Your task to perform on an android device: Open accessibility settings Image 0: 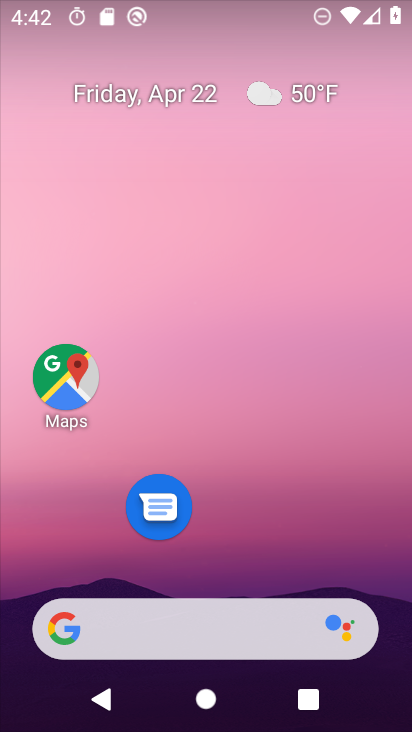
Step 0: drag from (227, 559) to (289, 108)
Your task to perform on an android device: Open accessibility settings Image 1: 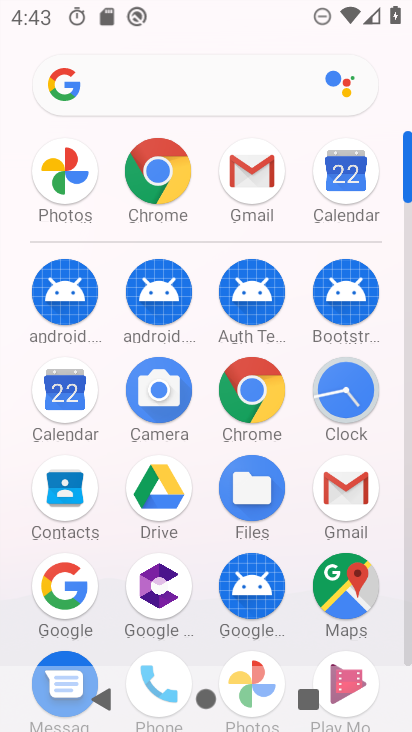
Step 1: drag from (204, 598) to (320, 139)
Your task to perform on an android device: Open accessibility settings Image 2: 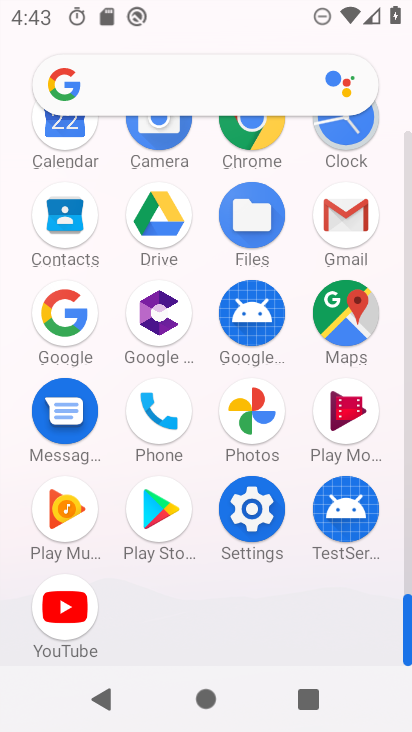
Step 2: click (258, 513)
Your task to perform on an android device: Open accessibility settings Image 3: 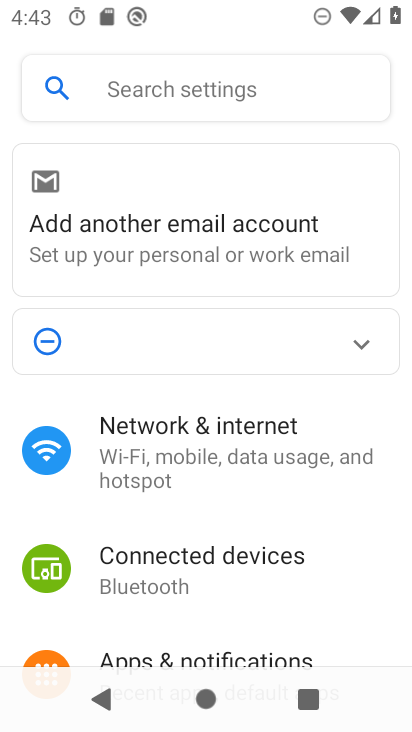
Step 3: drag from (176, 605) to (303, 131)
Your task to perform on an android device: Open accessibility settings Image 4: 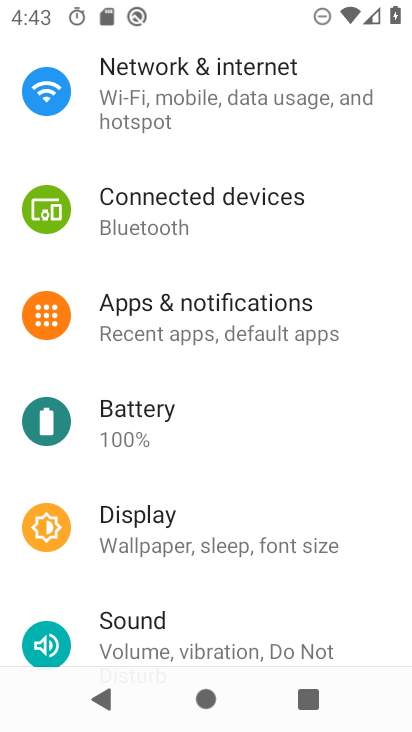
Step 4: drag from (179, 624) to (324, 165)
Your task to perform on an android device: Open accessibility settings Image 5: 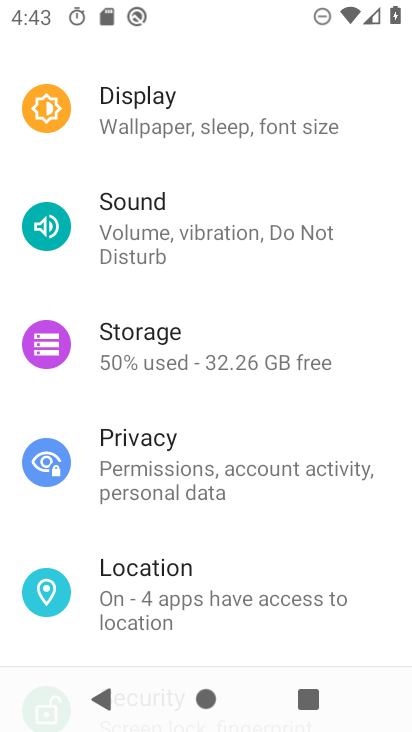
Step 5: drag from (193, 610) to (339, 58)
Your task to perform on an android device: Open accessibility settings Image 6: 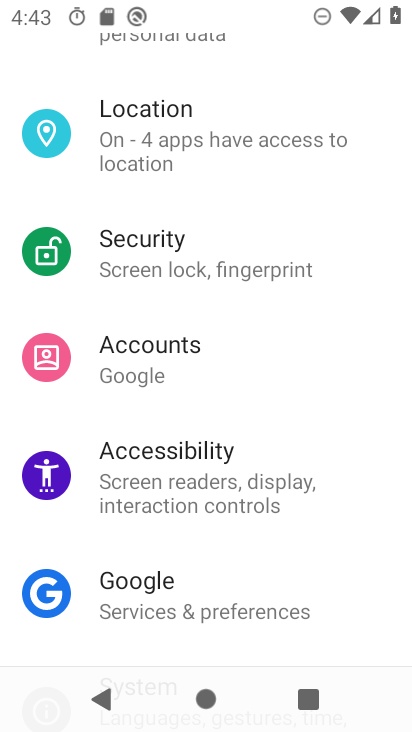
Step 6: click (145, 472)
Your task to perform on an android device: Open accessibility settings Image 7: 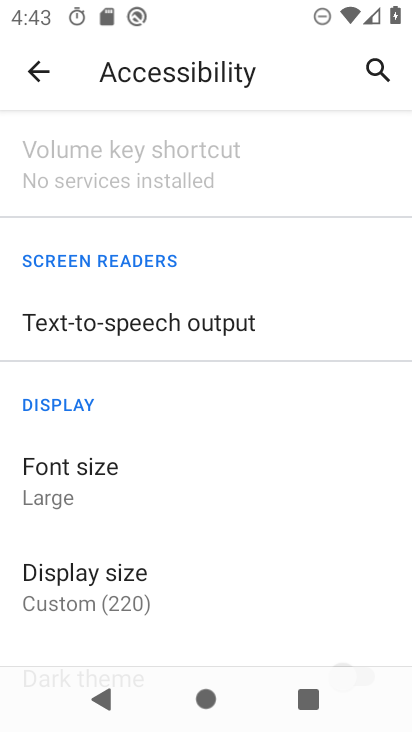
Step 7: task complete